Your task to perform on an android device: Open CNN.com Image 0: 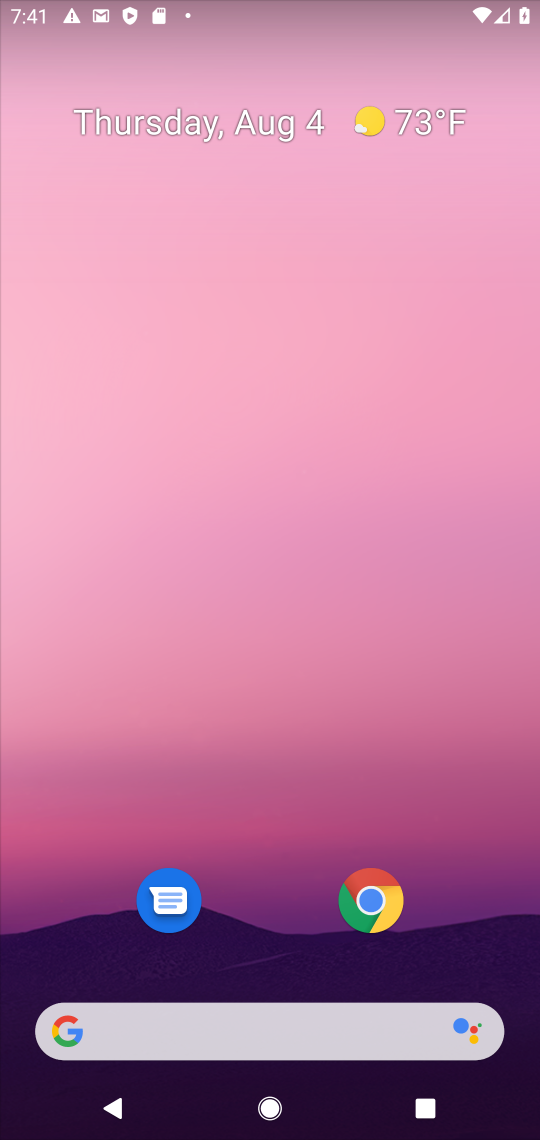
Step 0: click (372, 903)
Your task to perform on an android device: Open CNN.com Image 1: 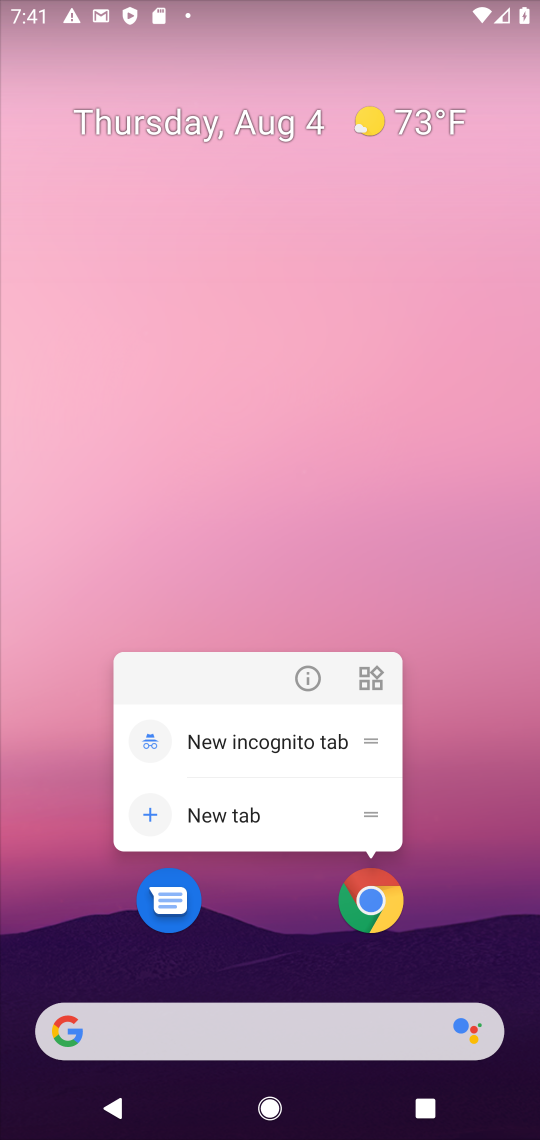
Step 1: click (372, 901)
Your task to perform on an android device: Open CNN.com Image 2: 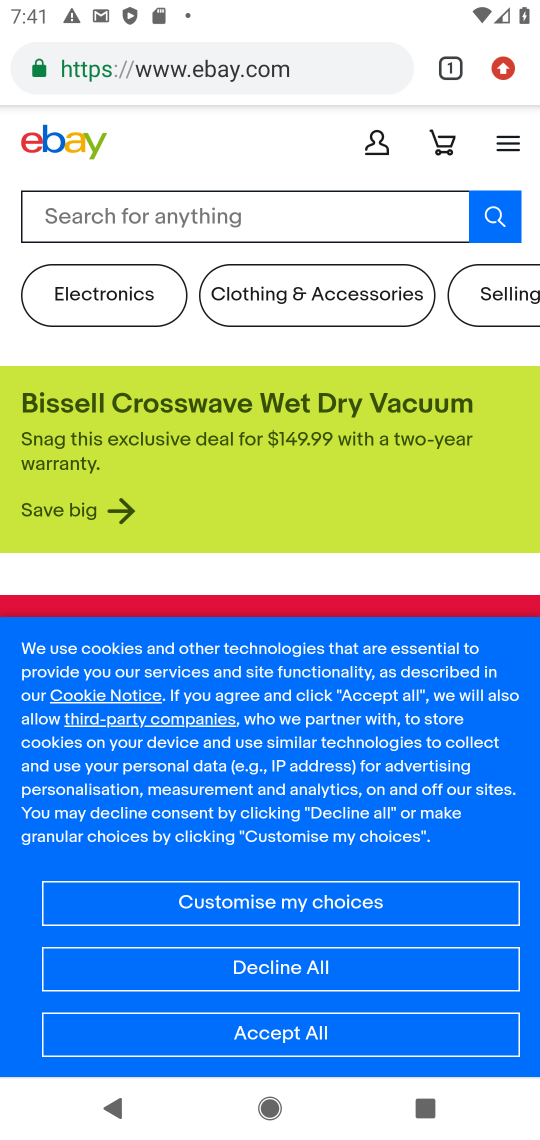
Step 2: click (505, 83)
Your task to perform on an android device: Open CNN.com Image 3: 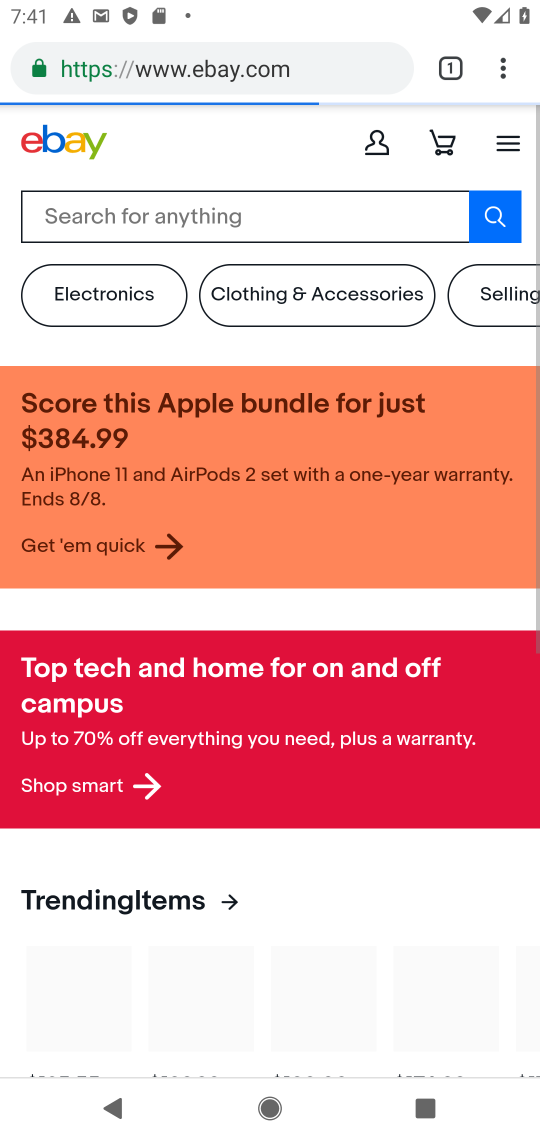
Step 3: drag from (501, 68) to (362, 229)
Your task to perform on an android device: Open CNN.com Image 4: 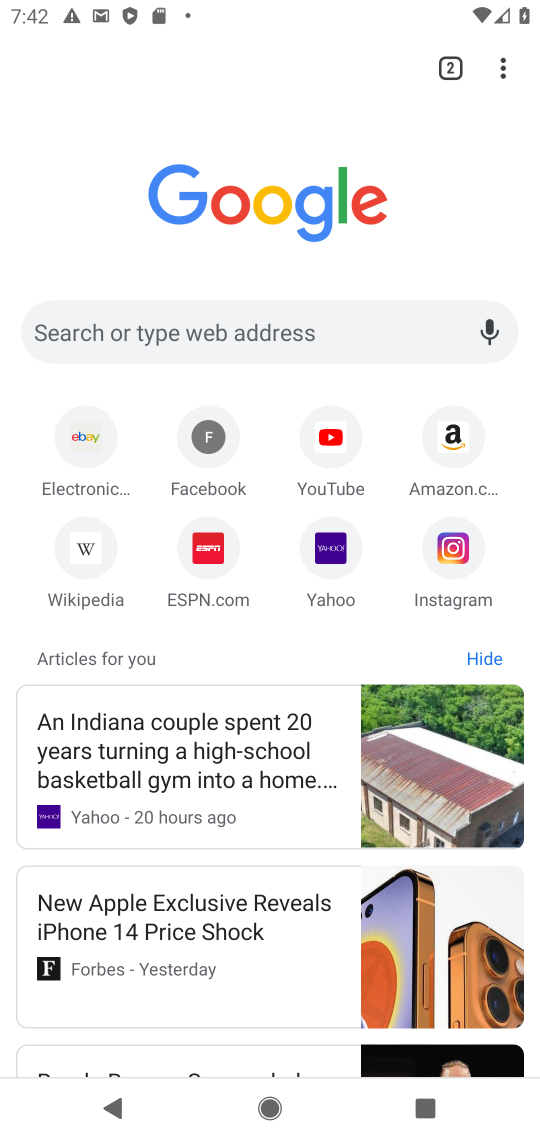
Step 4: click (137, 325)
Your task to perform on an android device: Open CNN.com Image 5: 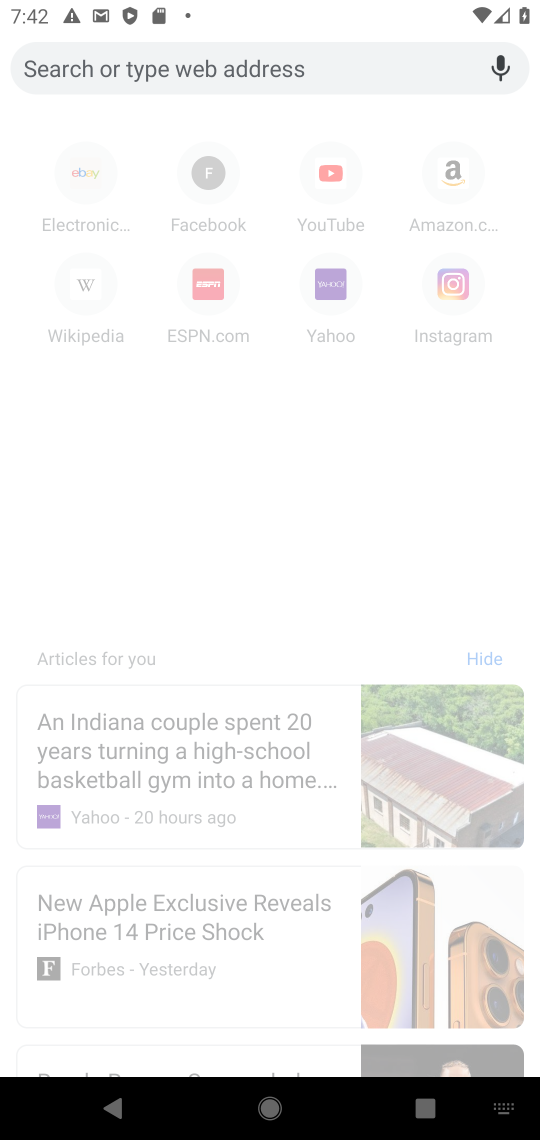
Step 5: type "cnn.com"
Your task to perform on an android device: Open CNN.com Image 6: 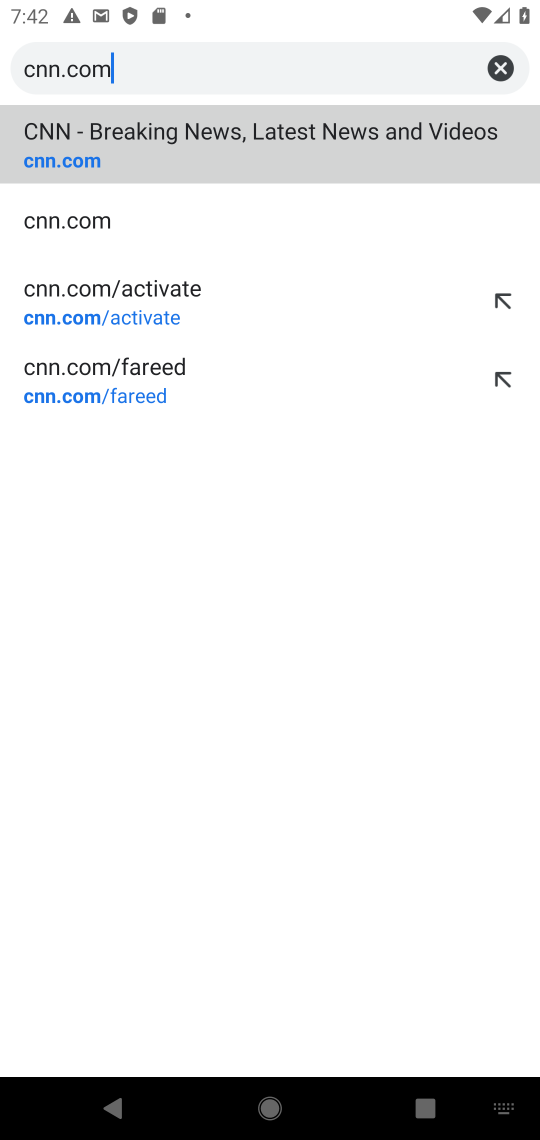
Step 6: click (138, 118)
Your task to perform on an android device: Open CNN.com Image 7: 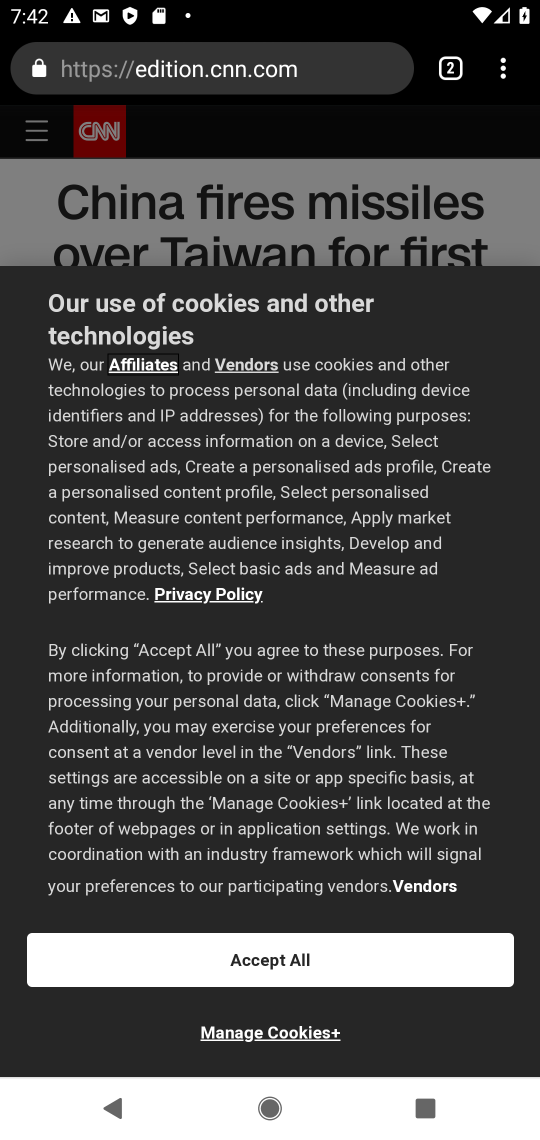
Step 7: click (289, 950)
Your task to perform on an android device: Open CNN.com Image 8: 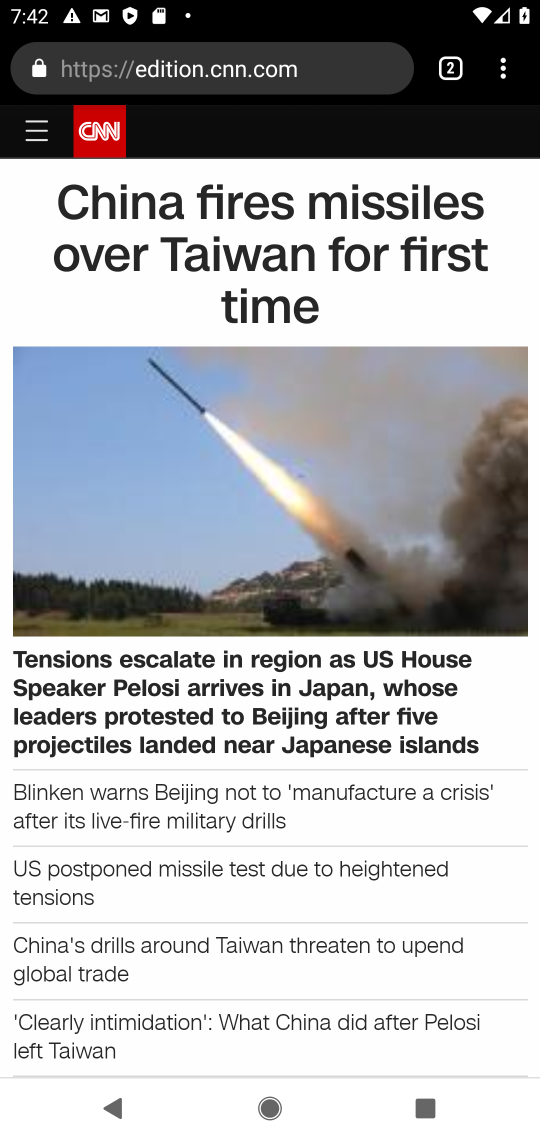
Step 8: task complete